Your task to perform on an android device: turn on sleep mode Image 0: 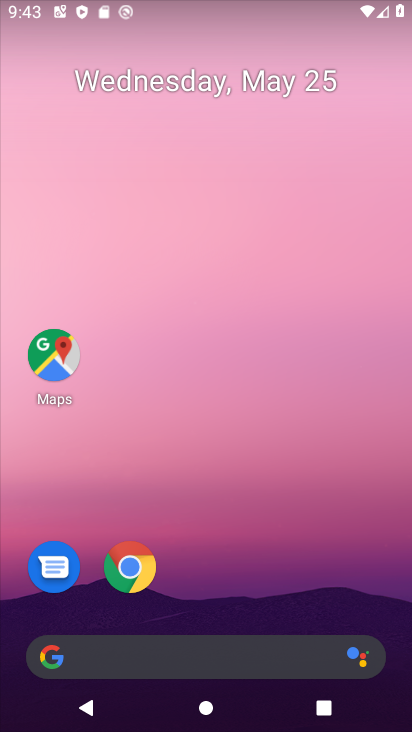
Step 0: drag from (295, 551) to (237, 5)
Your task to perform on an android device: turn on sleep mode Image 1: 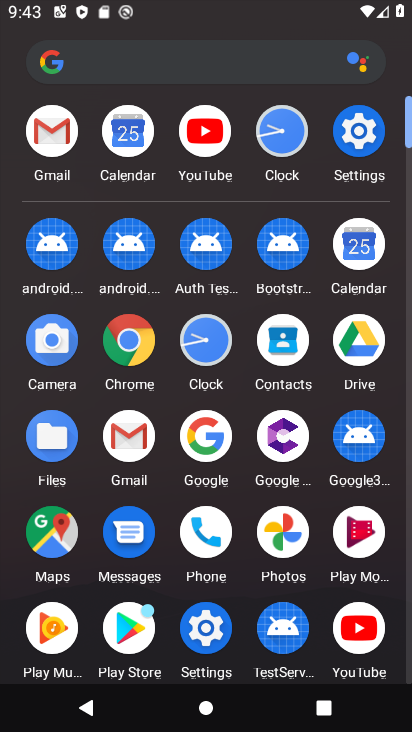
Step 1: click (359, 136)
Your task to perform on an android device: turn on sleep mode Image 2: 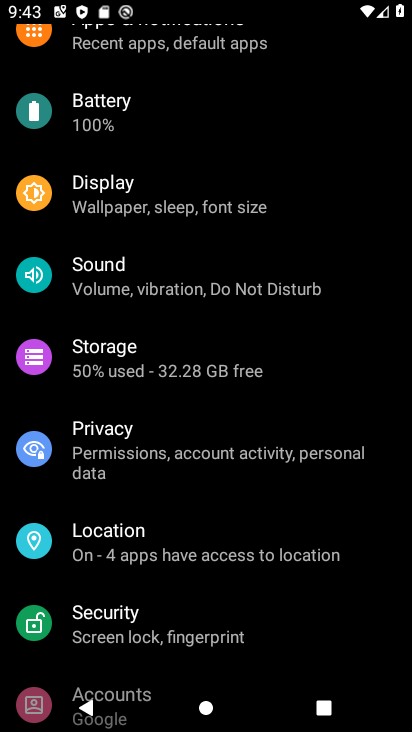
Step 2: task complete